Your task to perform on an android device: Go to calendar. Show me events next week Image 0: 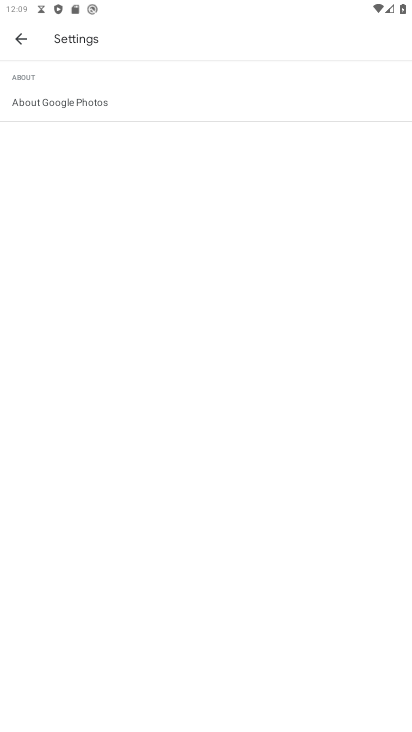
Step 0: press home button
Your task to perform on an android device: Go to calendar. Show me events next week Image 1: 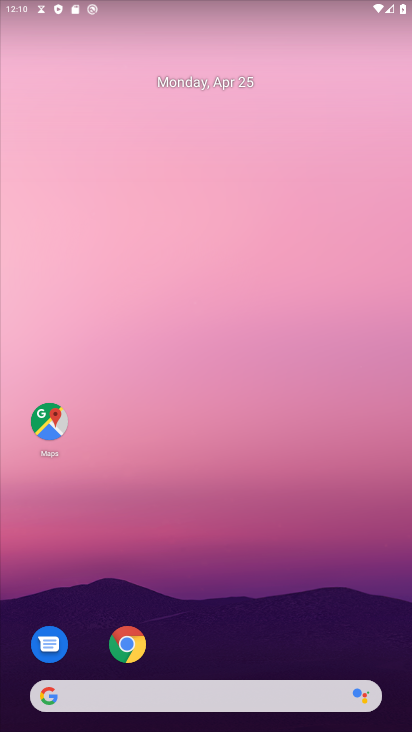
Step 1: drag from (331, 583) to (356, 20)
Your task to perform on an android device: Go to calendar. Show me events next week Image 2: 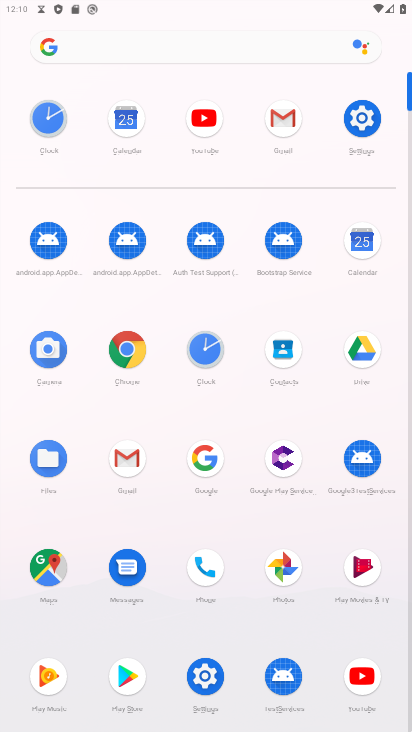
Step 2: click (361, 248)
Your task to perform on an android device: Go to calendar. Show me events next week Image 3: 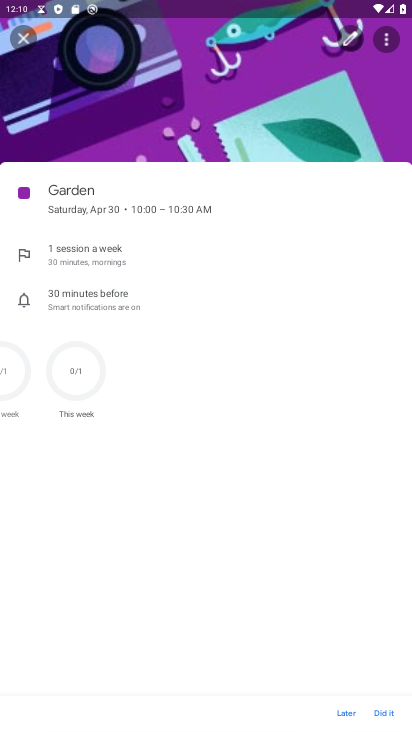
Step 3: click (12, 38)
Your task to perform on an android device: Go to calendar. Show me events next week Image 4: 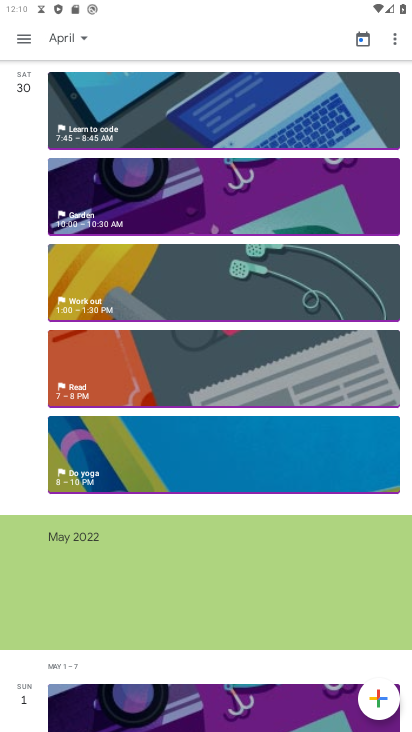
Step 4: click (88, 37)
Your task to perform on an android device: Go to calendar. Show me events next week Image 5: 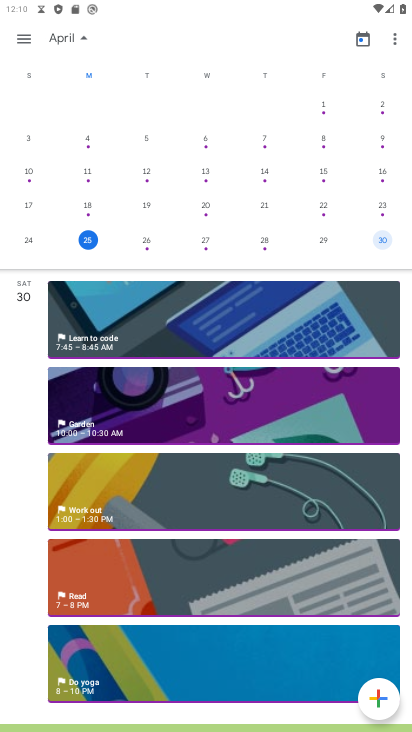
Step 5: drag from (251, 198) to (10, 205)
Your task to perform on an android device: Go to calendar. Show me events next week Image 6: 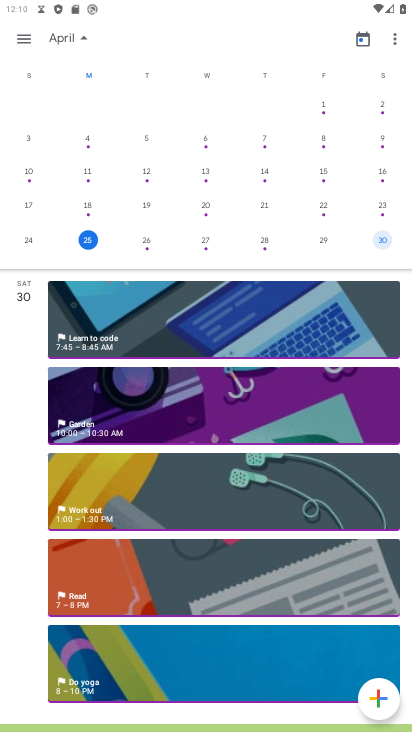
Step 6: drag from (336, 181) to (8, 227)
Your task to perform on an android device: Go to calendar. Show me events next week Image 7: 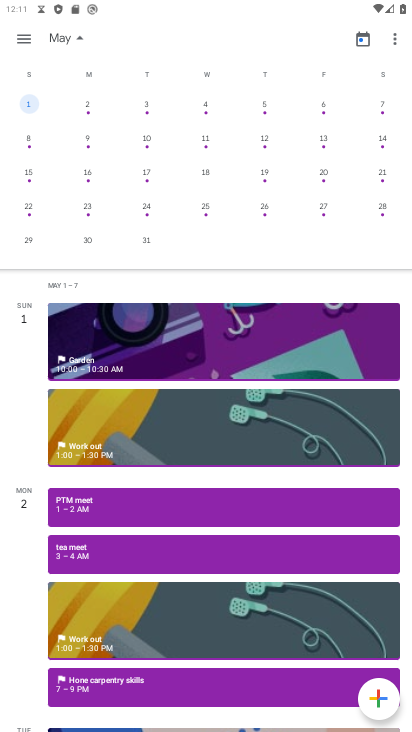
Step 7: click (89, 110)
Your task to perform on an android device: Go to calendar. Show me events next week Image 8: 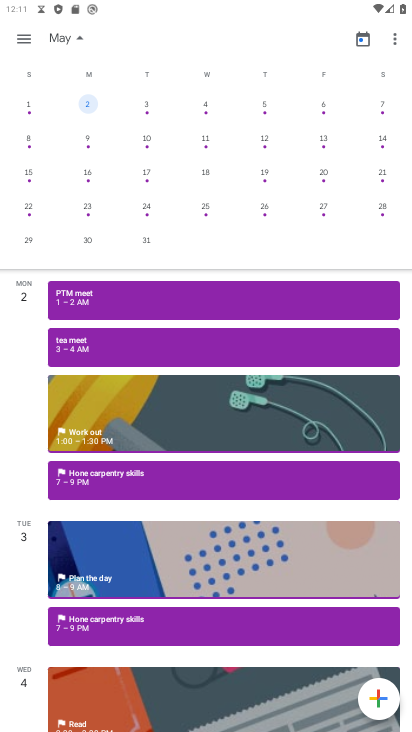
Step 8: click (104, 307)
Your task to perform on an android device: Go to calendar. Show me events next week Image 9: 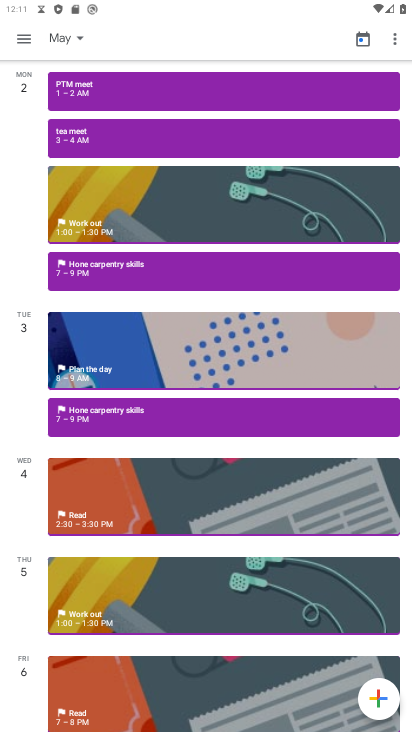
Step 9: click (111, 94)
Your task to perform on an android device: Go to calendar. Show me events next week Image 10: 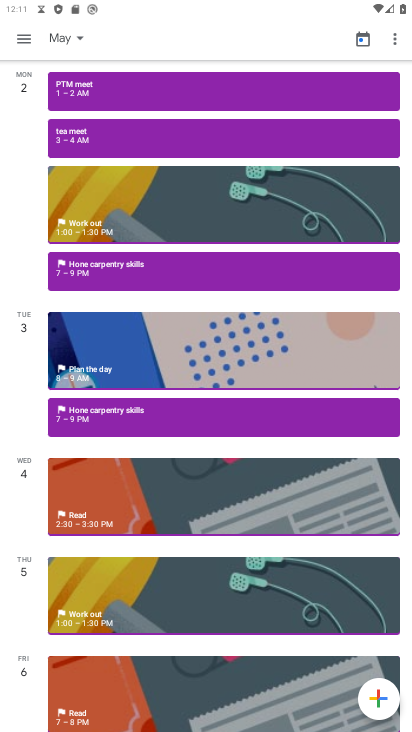
Step 10: click (125, 96)
Your task to perform on an android device: Go to calendar. Show me events next week Image 11: 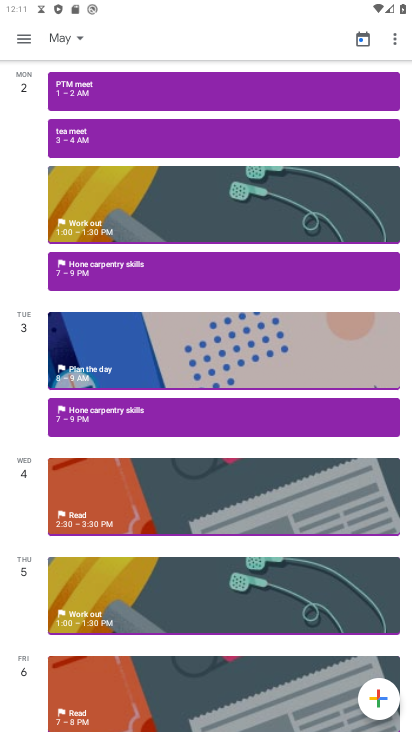
Step 11: click (195, 98)
Your task to perform on an android device: Go to calendar. Show me events next week Image 12: 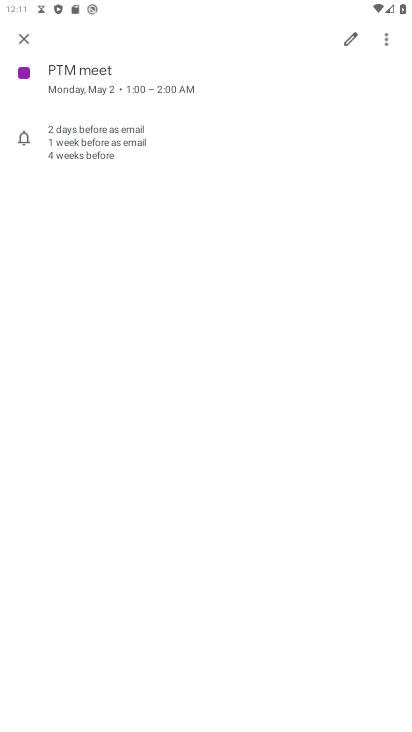
Step 12: task complete